Your task to perform on an android device: Do I have any events today? Image 0: 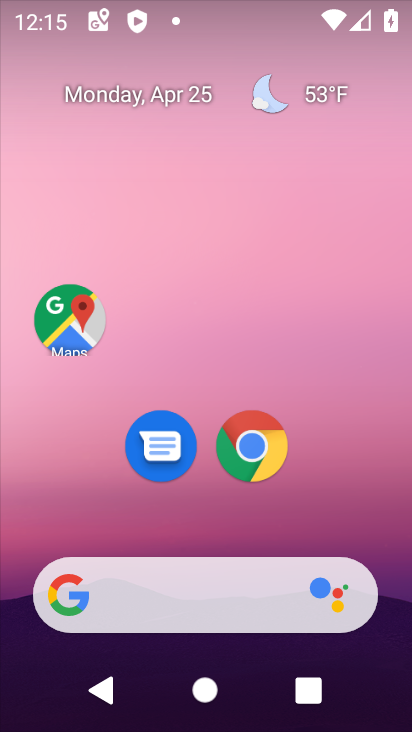
Step 0: drag from (214, 513) to (258, 0)
Your task to perform on an android device: Do I have any events today? Image 1: 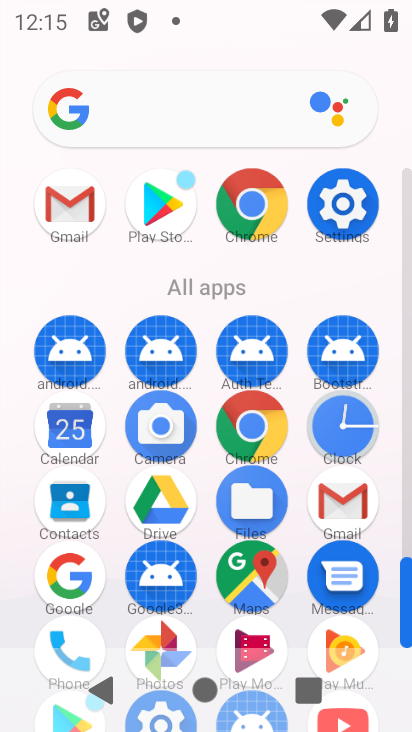
Step 1: click (76, 425)
Your task to perform on an android device: Do I have any events today? Image 2: 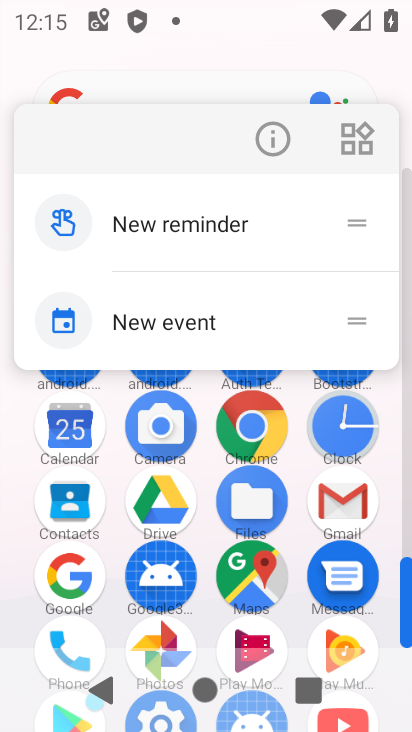
Step 2: click (76, 425)
Your task to perform on an android device: Do I have any events today? Image 3: 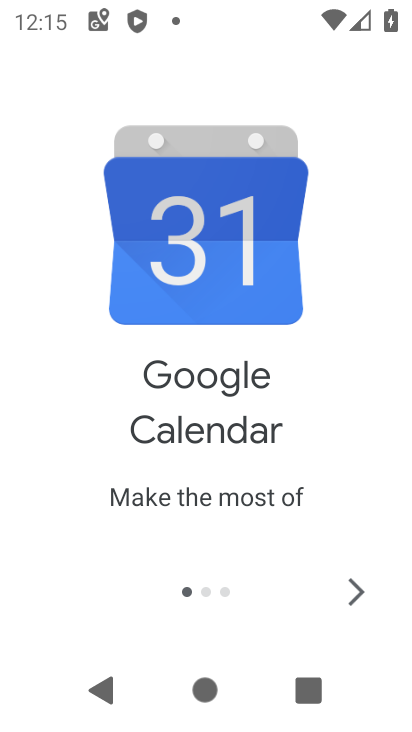
Step 3: click (358, 591)
Your task to perform on an android device: Do I have any events today? Image 4: 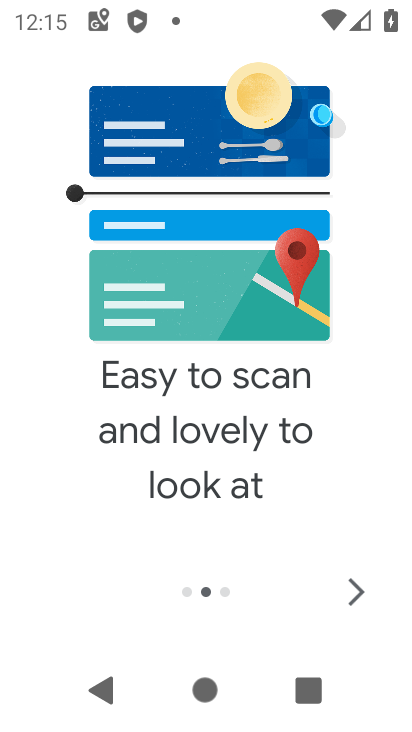
Step 4: click (357, 592)
Your task to perform on an android device: Do I have any events today? Image 5: 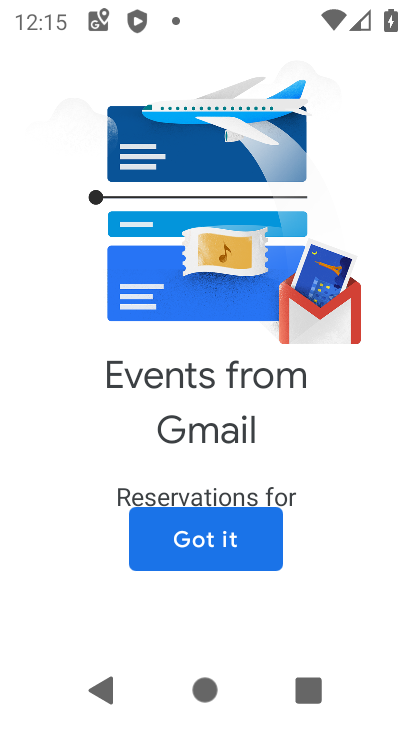
Step 5: click (187, 551)
Your task to perform on an android device: Do I have any events today? Image 6: 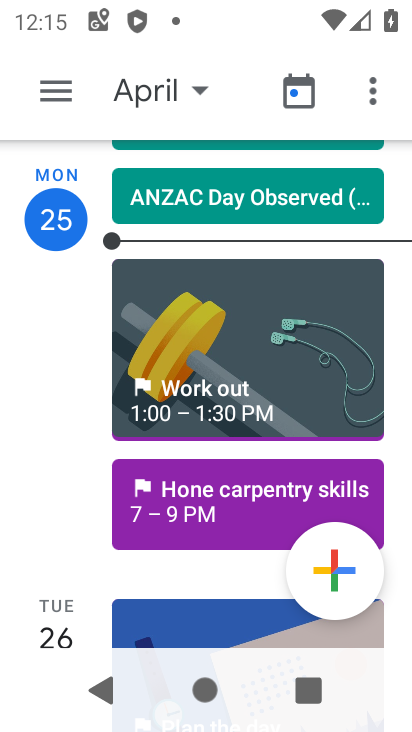
Step 6: click (61, 77)
Your task to perform on an android device: Do I have any events today? Image 7: 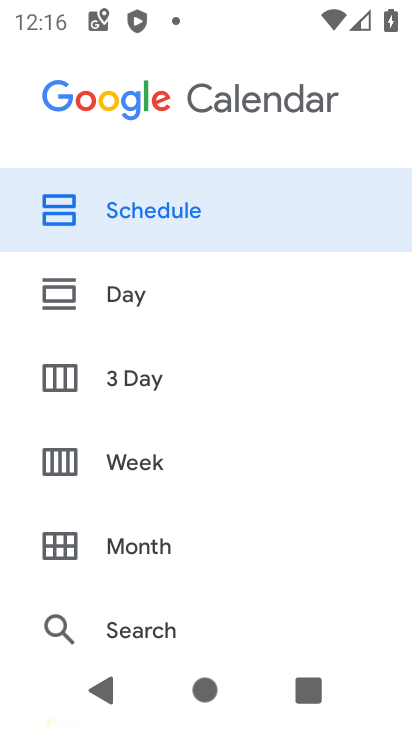
Step 7: drag from (142, 538) to (264, 41)
Your task to perform on an android device: Do I have any events today? Image 8: 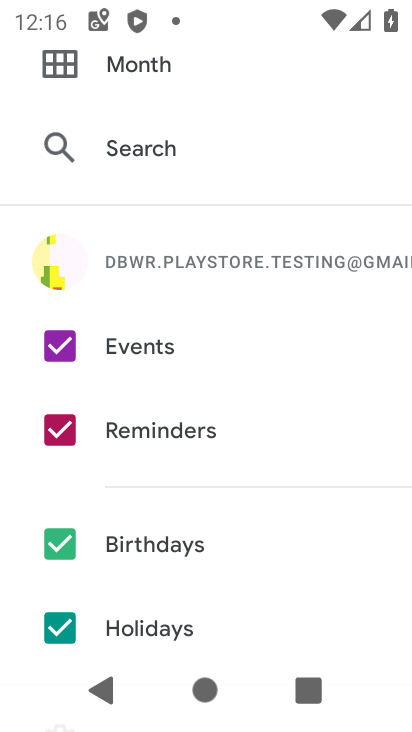
Step 8: click (53, 427)
Your task to perform on an android device: Do I have any events today? Image 9: 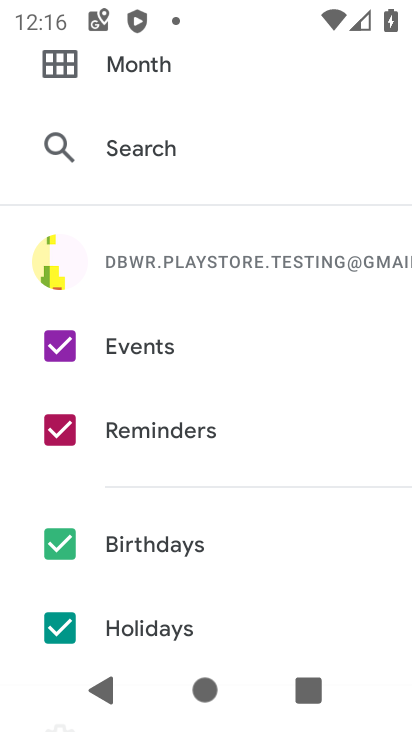
Step 9: click (79, 551)
Your task to perform on an android device: Do I have any events today? Image 10: 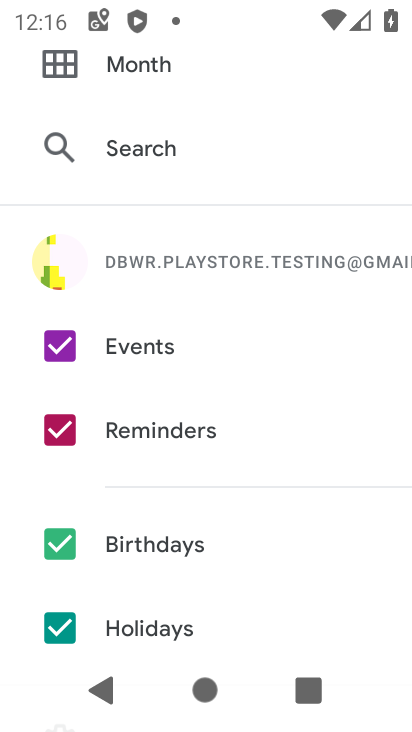
Step 10: click (161, 441)
Your task to perform on an android device: Do I have any events today? Image 11: 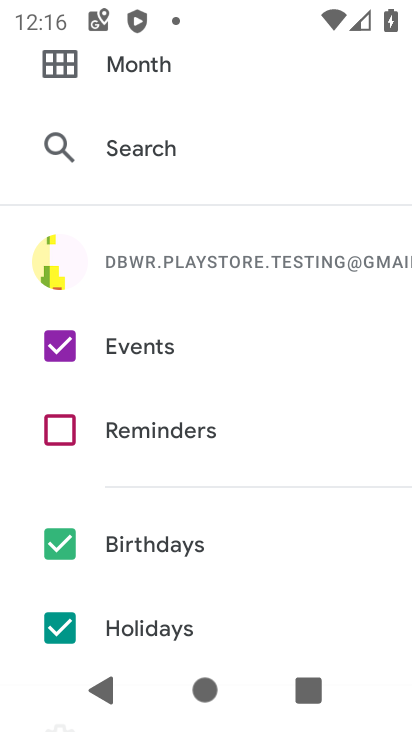
Step 11: click (154, 549)
Your task to perform on an android device: Do I have any events today? Image 12: 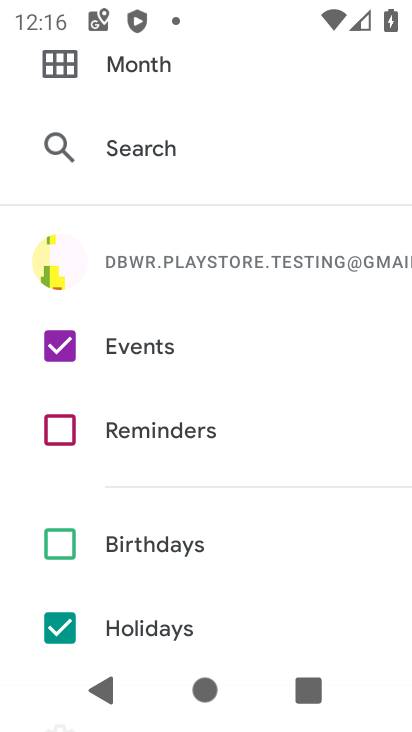
Step 12: drag from (261, 529) to (360, 70)
Your task to perform on an android device: Do I have any events today? Image 13: 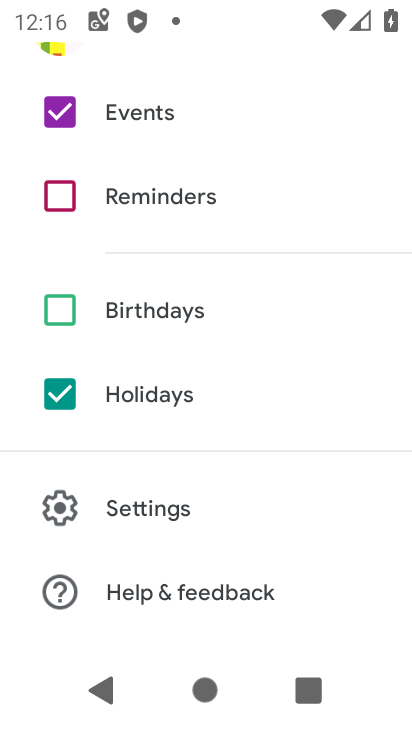
Step 13: click (134, 390)
Your task to perform on an android device: Do I have any events today? Image 14: 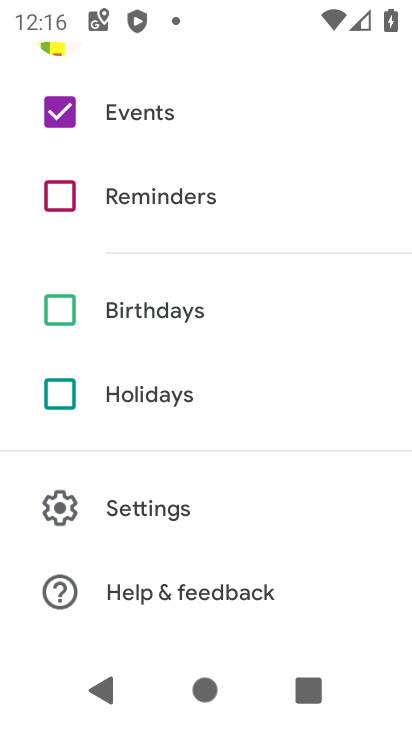
Step 14: drag from (312, 210) to (249, 601)
Your task to perform on an android device: Do I have any events today? Image 15: 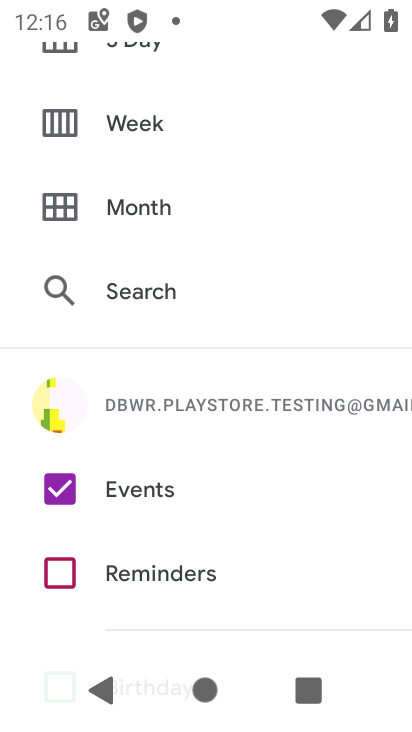
Step 15: drag from (259, 253) to (196, 656)
Your task to perform on an android device: Do I have any events today? Image 16: 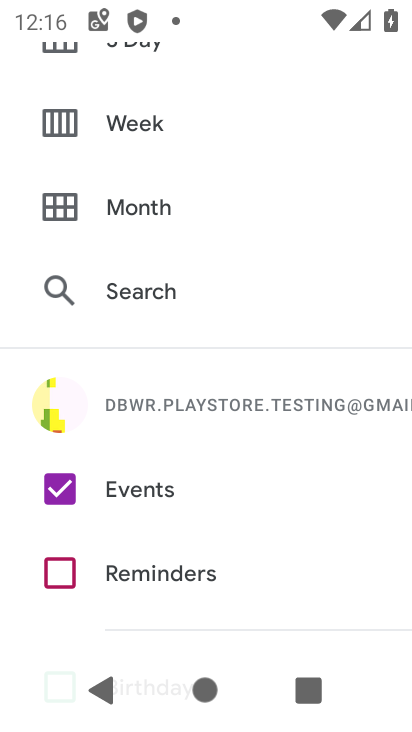
Step 16: drag from (250, 174) to (246, 670)
Your task to perform on an android device: Do I have any events today? Image 17: 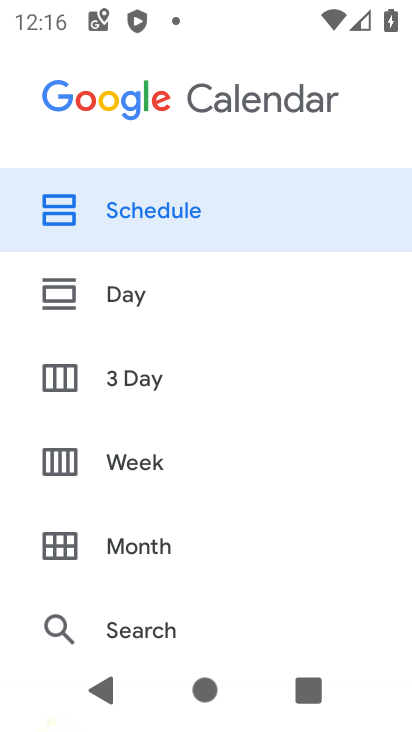
Step 17: click (140, 310)
Your task to perform on an android device: Do I have any events today? Image 18: 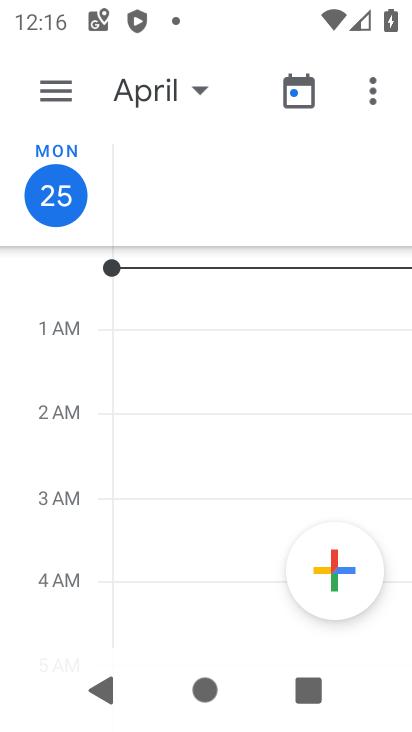
Step 18: task complete